Your task to perform on an android device: allow notifications from all sites in the chrome app Image 0: 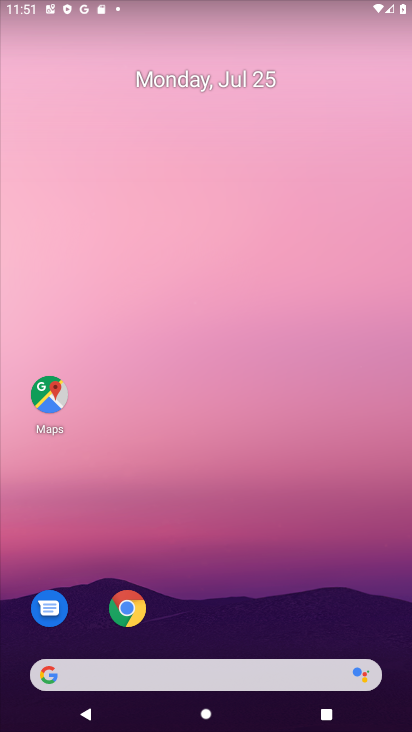
Step 0: drag from (228, 639) to (228, 126)
Your task to perform on an android device: allow notifications from all sites in the chrome app Image 1: 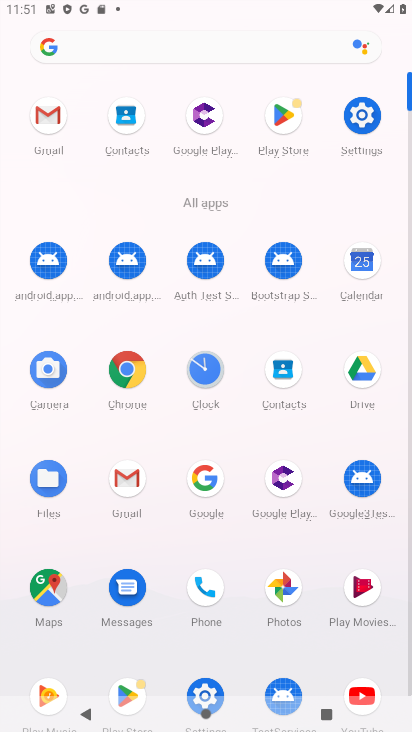
Step 1: click (367, 117)
Your task to perform on an android device: allow notifications from all sites in the chrome app Image 2: 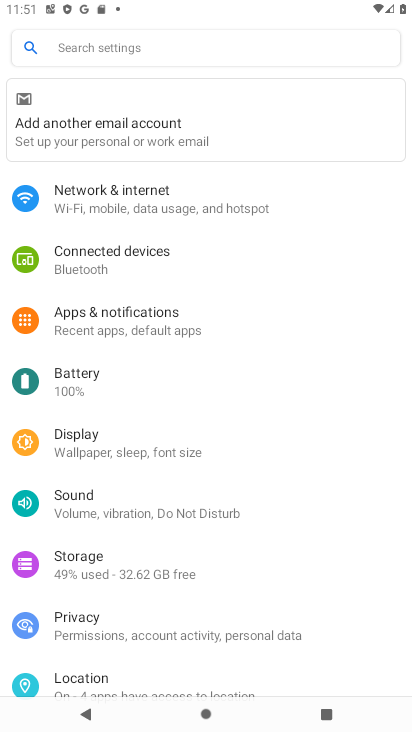
Step 2: click (151, 341)
Your task to perform on an android device: allow notifications from all sites in the chrome app Image 3: 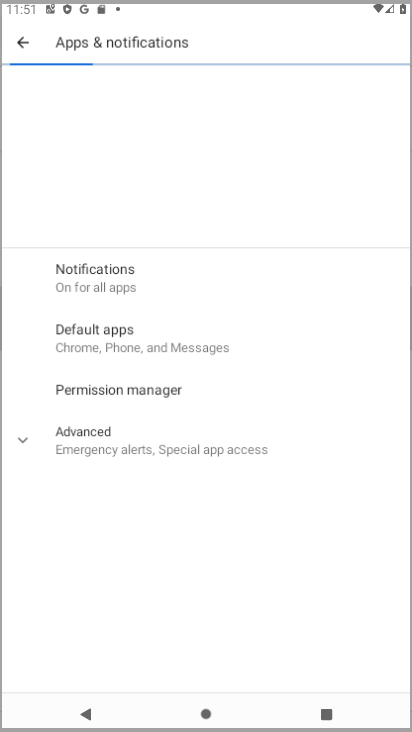
Step 3: click (165, 321)
Your task to perform on an android device: allow notifications from all sites in the chrome app Image 4: 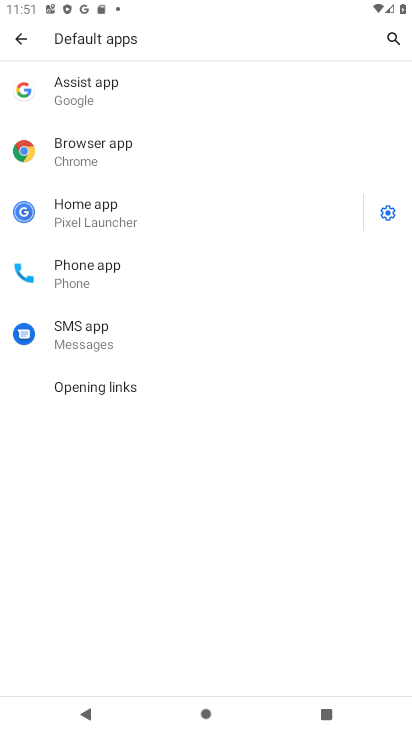
Step 4: click (147, 145)
Your task to perform on an android device: allow notifications from all sites in the chrome app Image 5: 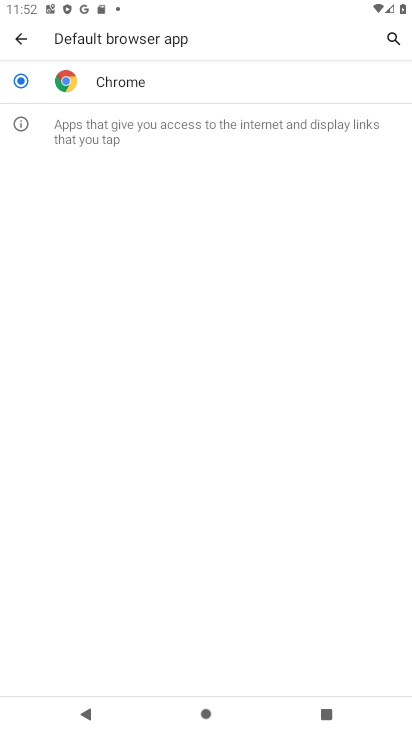
Step 5: click (163, 95)
Your task to perform on an android device: allow notifications from all sites in the chrome app Image 6: 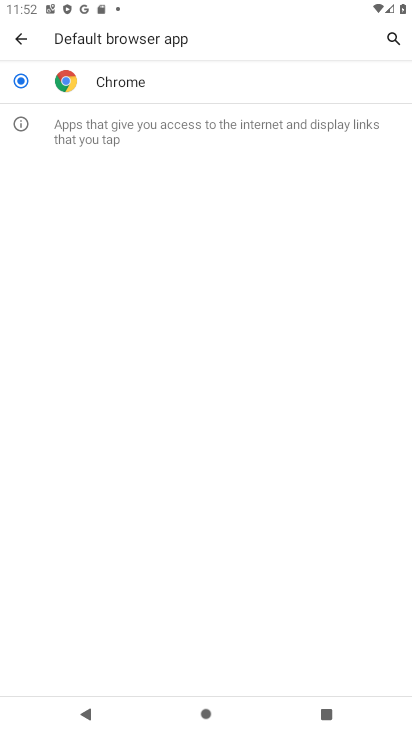
Step 6: click (163, 95)
Your task to perform on an android device: allow notifications from all sites in the chrome app Image 7: 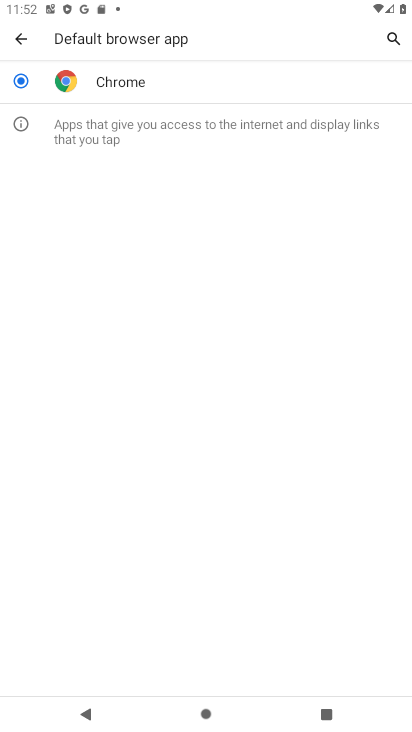
Step 7: click (21, 34)
Your task to perform on an android device: allow notifications from all sites in the chrome app Image 8: 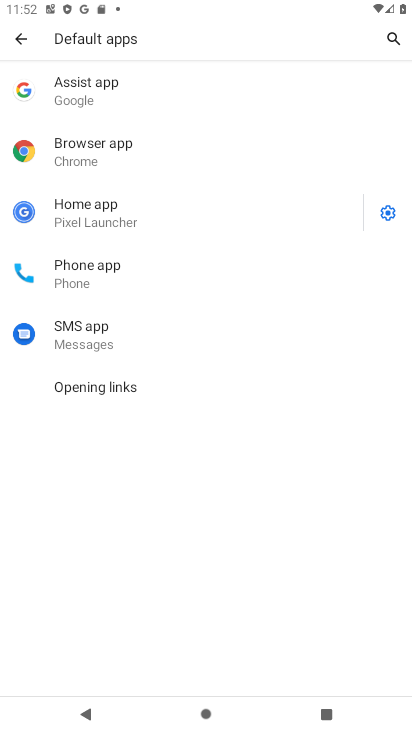
Step 8: click (21, 48)
Your task to perform on an android device: allow notifications from all sites in the chrome app Image 9: 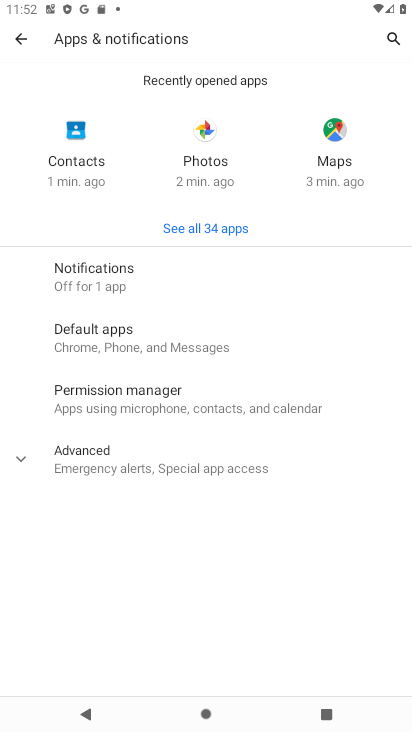
Step 9: click (21, 46)
Your task to perform on an android device: allow notifications from all sites in the chrome app Image 10: 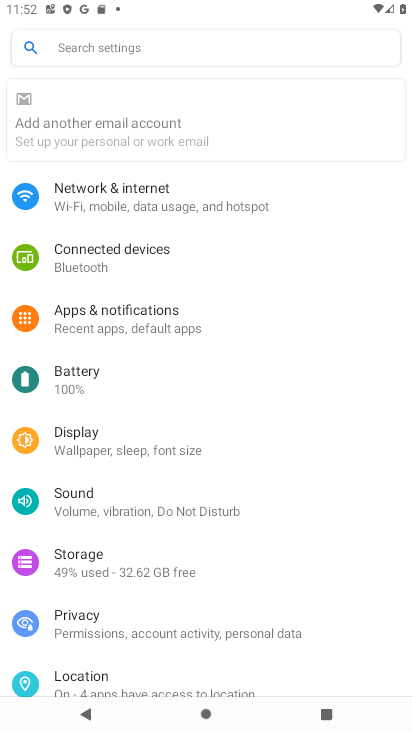
Step 10: click (29, 46)
Your task to perform on an android device: allow notifications from all sites in the chrome app Image 11: 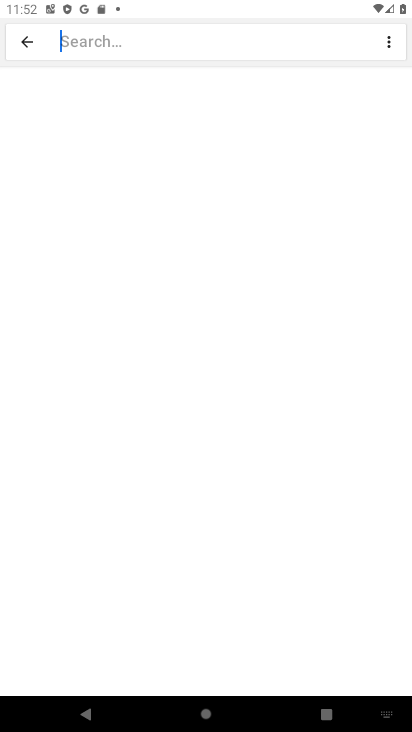
Step 11: click (133, 320)
Your task to perform on an android device: allow notifications from all sites in the chrome app Image 12: 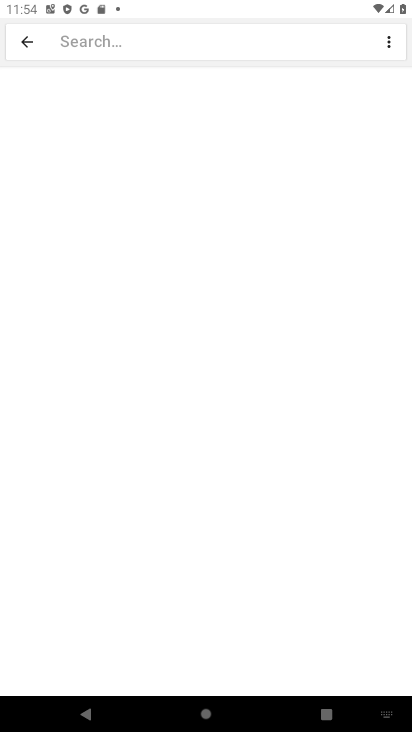
Step 12: press home button
Your task to perform on an android device: allow notifications from all sites in the chrome app Image 13: 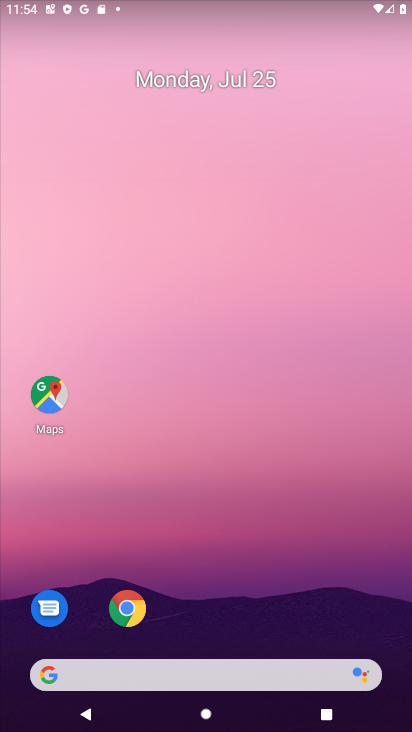
Step 13: click (129, 604)
Your task to perform on an android device: allow notifications from all sites in the chrome app Image 14: 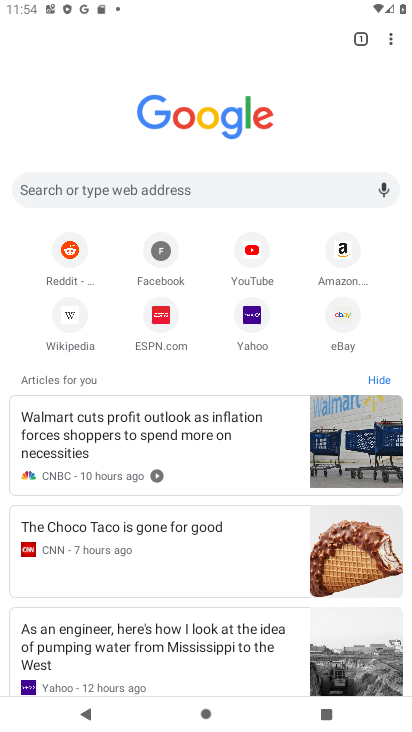
Step 14: click (400, 54)
Your task to perform on an android device: allow notifications from all sites in the chrome app Image 15: 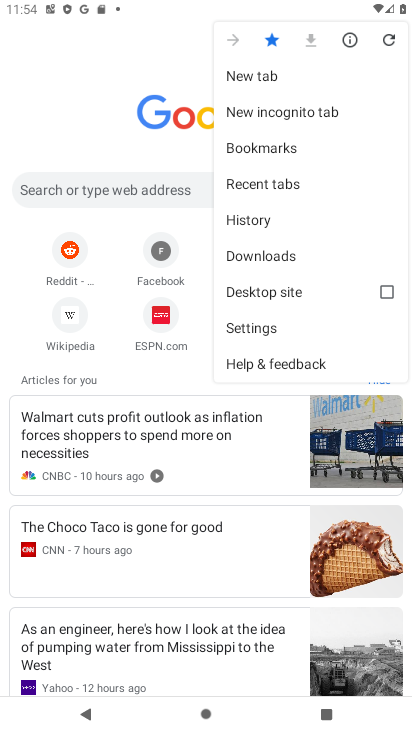
Step 15: click (263, 334)
Your task to perform on an android device: allow notifications from all sites in the chrome app Image 16: 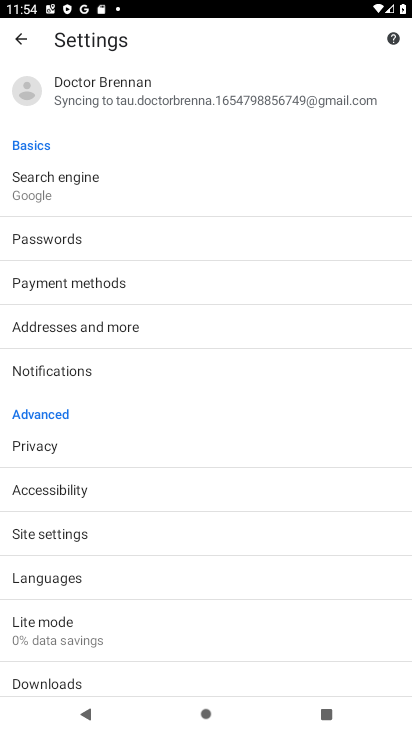
Step 16: click (107, 381)
Your task to perform on an android device: allow notifications from all sites in the chrome app Image 17: 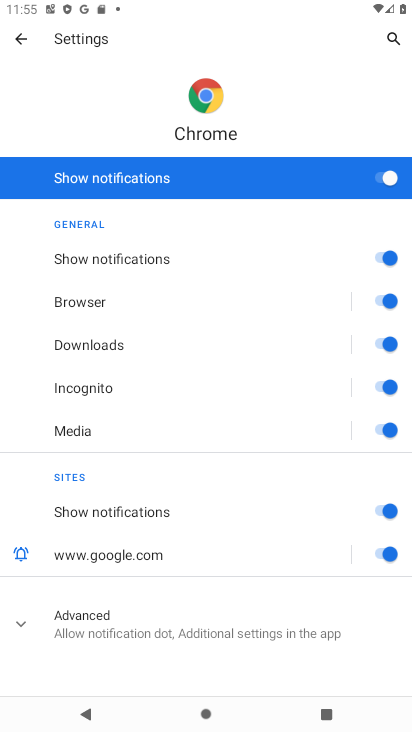
Step 17: task complete